Your task to perform on an android device: Open Google Maps and go to "Timeline" Image 0: 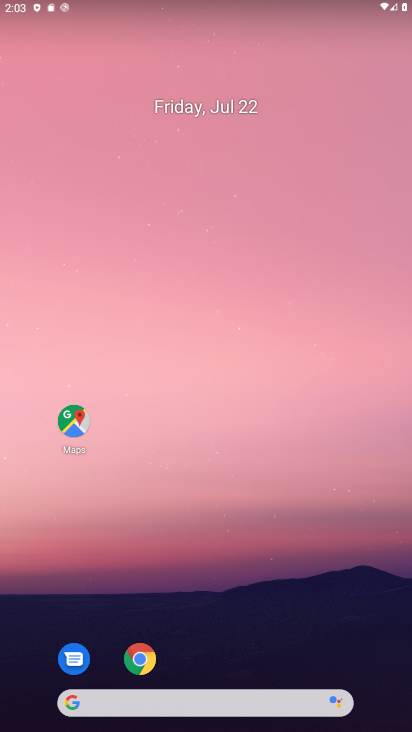
Step 0: click (148, 659)
Your task to perform on an android device: Open Google Maps and go to "Timeline" Image 1: 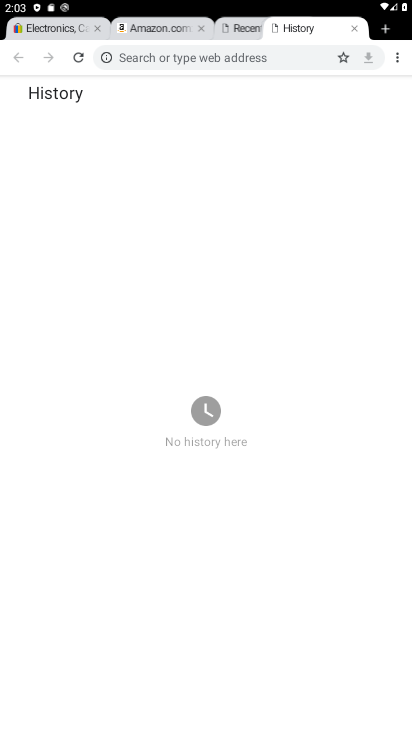
Step 1: press home button
Your task to perform on an android device: Open Google Maps and go to "Timeline" Image 2: 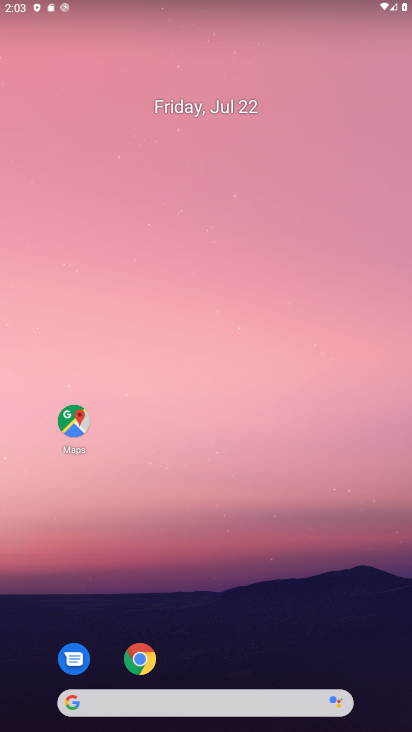
Step 2: click (80, 433)
Your task to perform on an android device: Open Google Maps and go to "Timeline" Image 3: 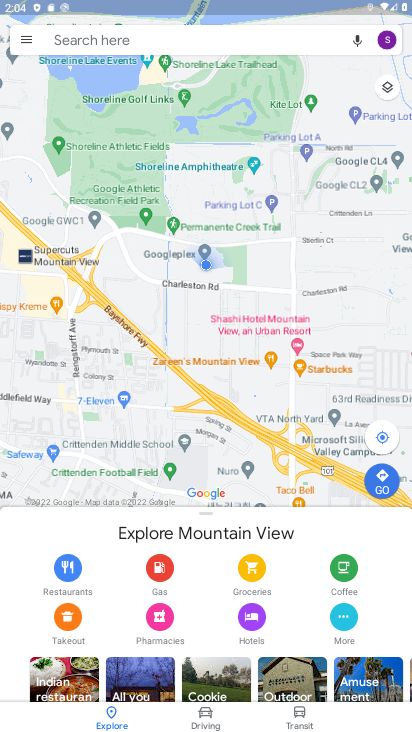
Step 3: task complete